Your task to perform on an android device: turn on showing notifications on the lock screen Image 0: 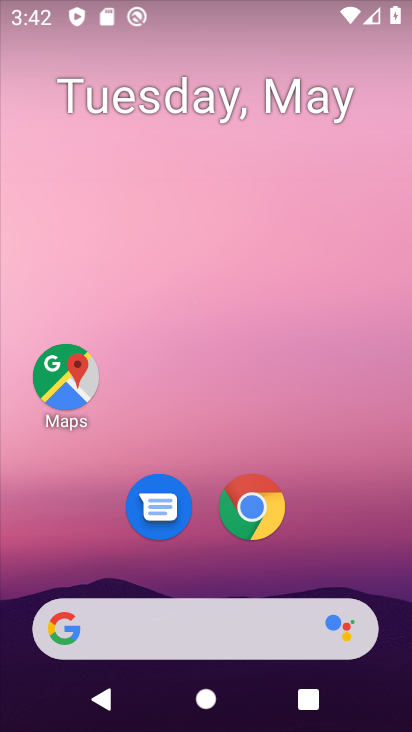
Step 0: drag from (233, 409) to (227, 177)
Your task to perform on an android device: turn on showing notifications on the lock screen Image 1: 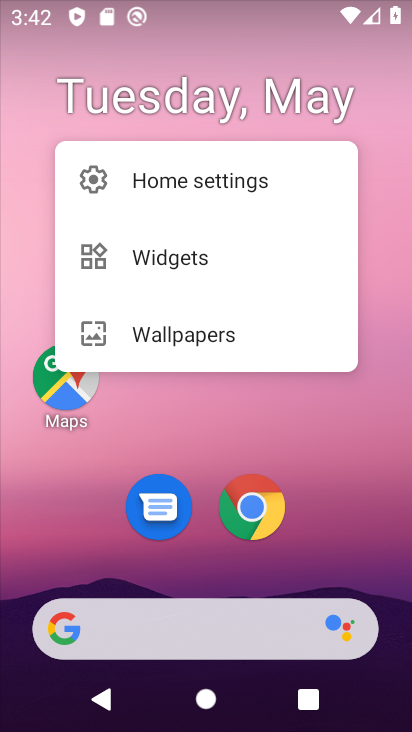
Step 1: click (332, 533)
Your task to perform on an android device: turn on showing notifications on the lock screen Image 2: 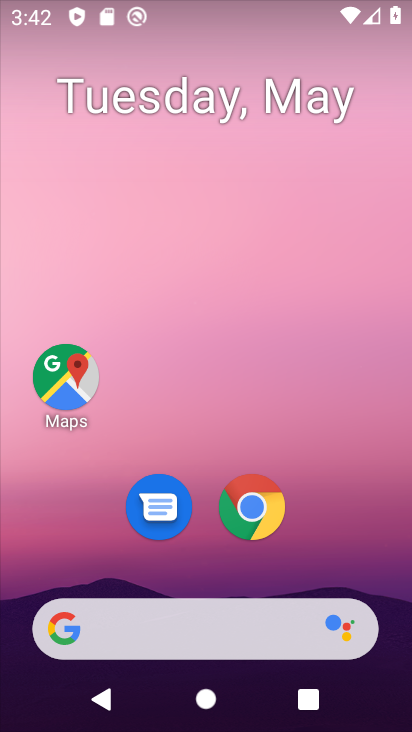
Step 2: drag from (192, 569) to (206, 113)
Your task to perform on an android device: turn on showing notifications on the lock screen Image 3: 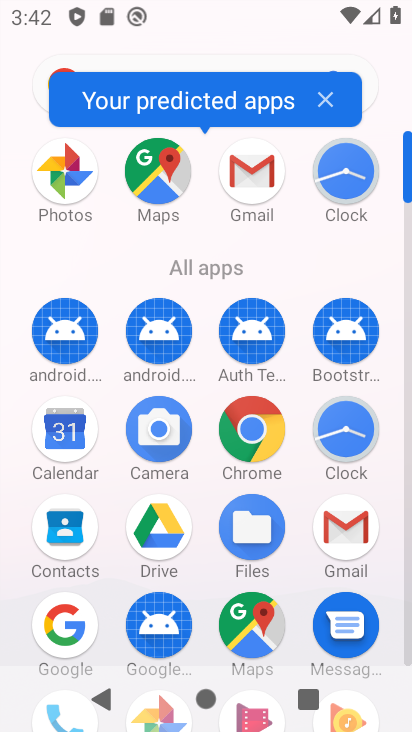
Step 3: drag from (110, 568) to (119, 76)
Your task to perform on an android device: turn on showing notifications on the lock screen Image 4: 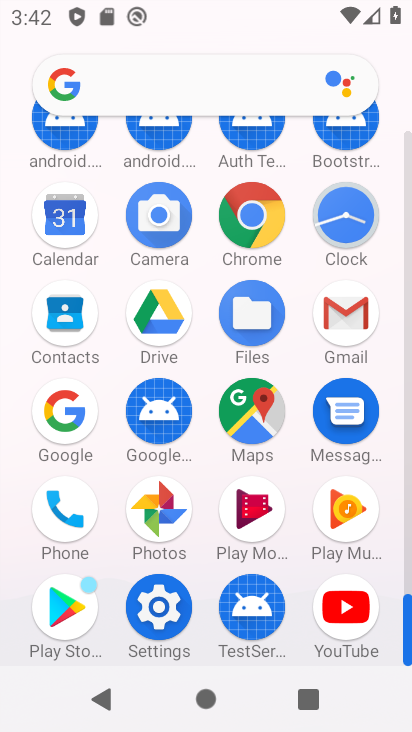
Step 4: click (165, 608)
Your task to perform on an android device: turn on showing notifications on the lock screen Image 5: 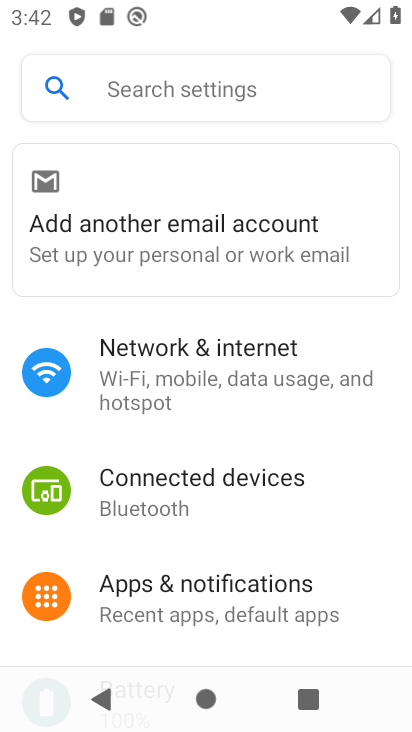
Step 5: drag from (215, 611) to (218, 274)
Your task to perform on an android device: turn on showing notifications on the lock screen Image 6: 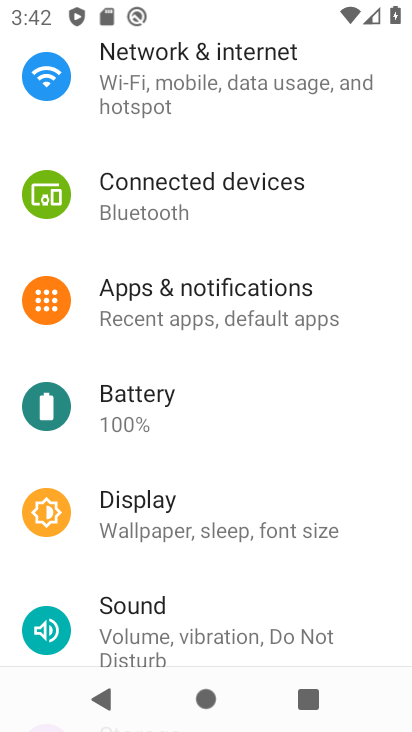
Step 6: click (199, 299)
Your task to perform on an android device: turn on showing notifications on the lock screen Image 7: 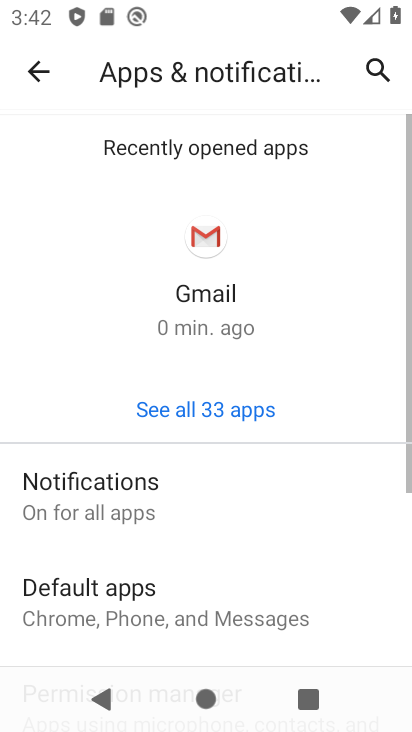
Step 7: click (134, 501)
Your task to perform on an android device: turn on showing notifications on the lock screen Image 8: 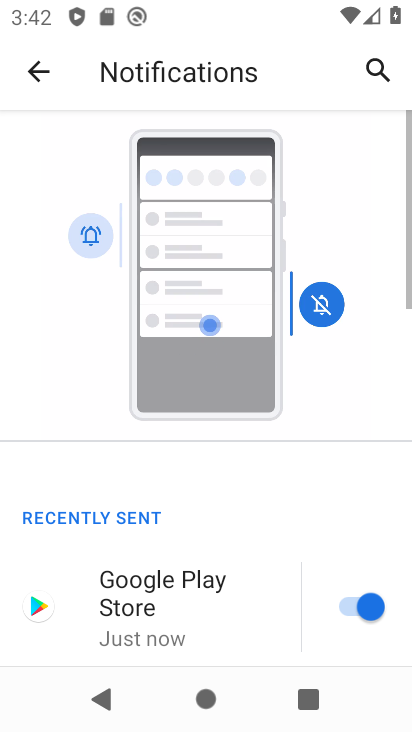
Step 8: drag from (235, 631) to (227, 173)
Your task to perform on an android device: turn on showing notifications on the lock screen Image 9: 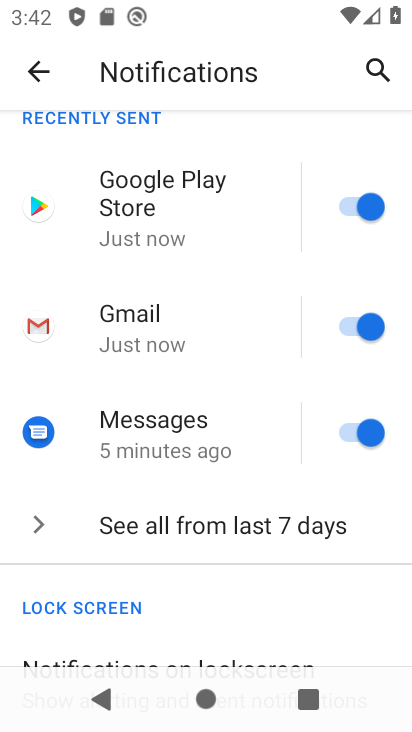
Step 9: drag from (190, 621) to (203, 191)
Your task to perform on an android device: turn on showing notifications on the lock screen Image 10: 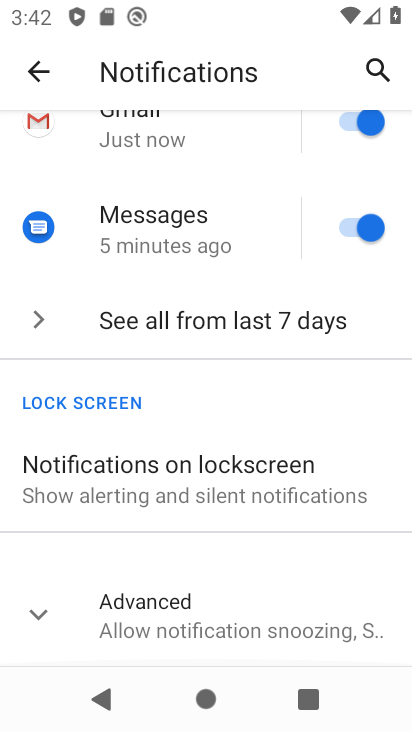
Step 10: click (182, 465)
Your task to perform on an android device: turn on showing notifications on the lock screen Image 11: 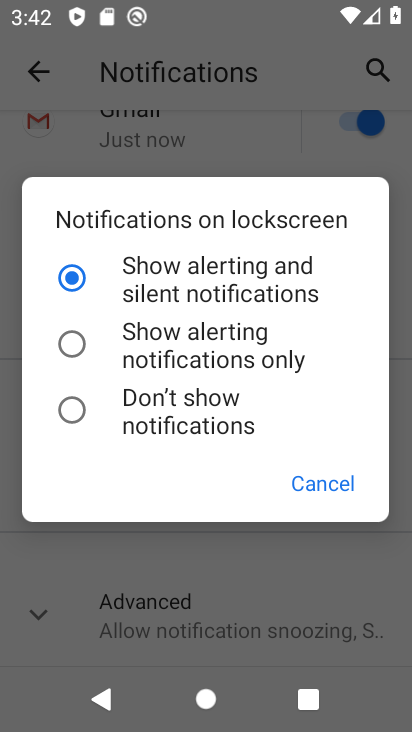
Step 11: task complete